Your task to perform on an android device: Go to eBay Image 0: 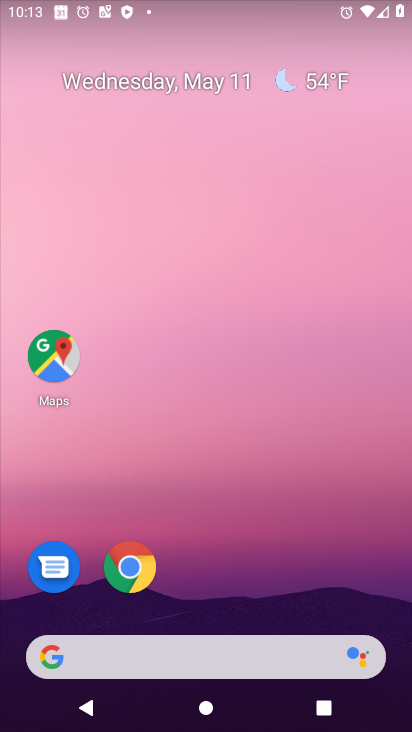
Step 0: drag from (245, 596) to (40, 34)
Your task to perform on an android device: Go to eBay Image 1: 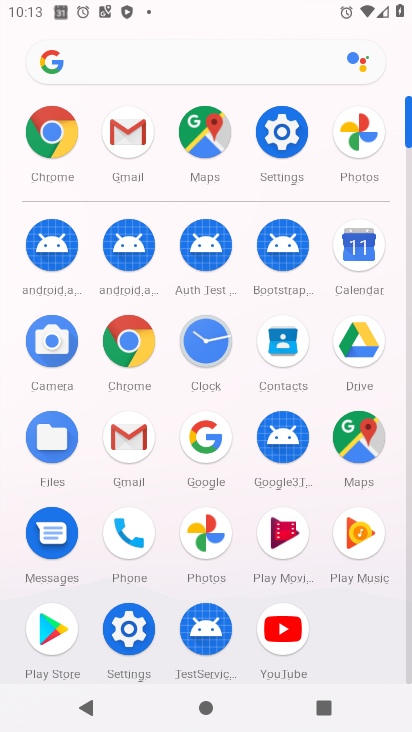
Step 1: click (120, 356)
Your task to perform on an android device: Go to eBay Image 2: 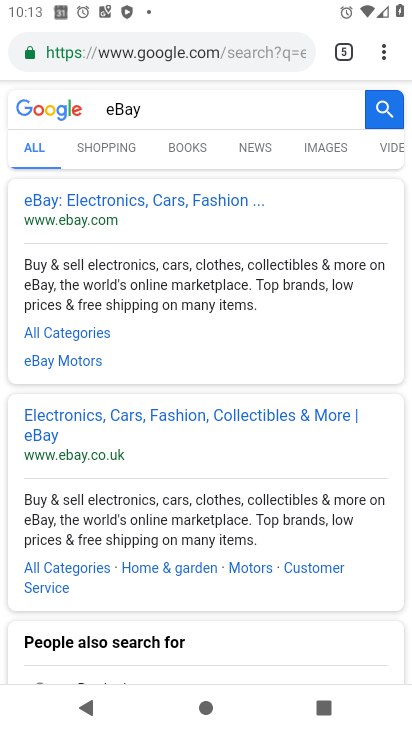
Step 2: click (121, 199)
Your task to perform on an android device: Go to eBay Image 3: 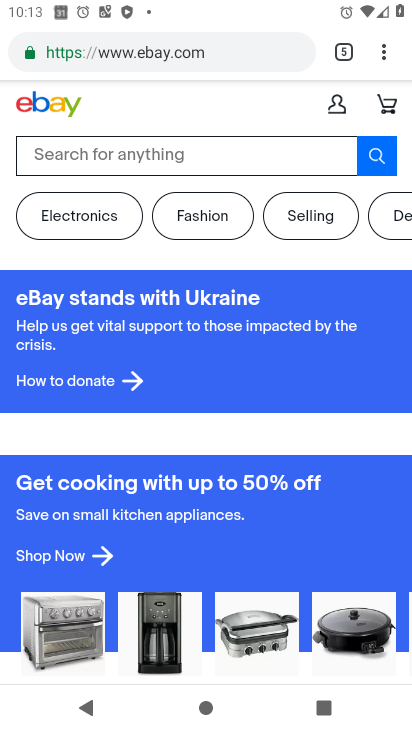
Step 3: task complete